Your task to perform on an android device: turn off wifi Image 0: 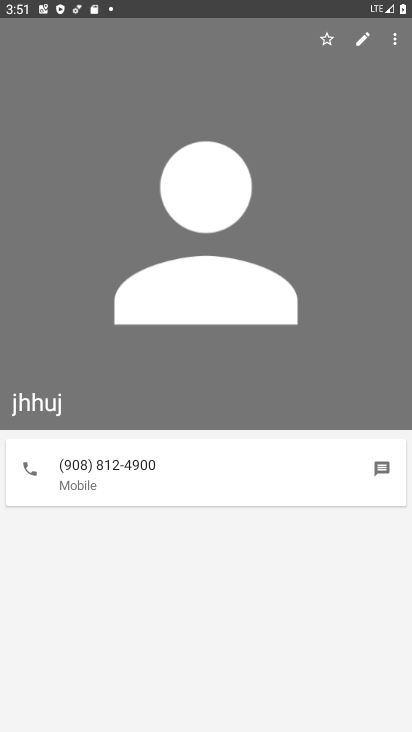
Step 0: press home button
Your task to perform on an android device: turn off wifi Image 1: 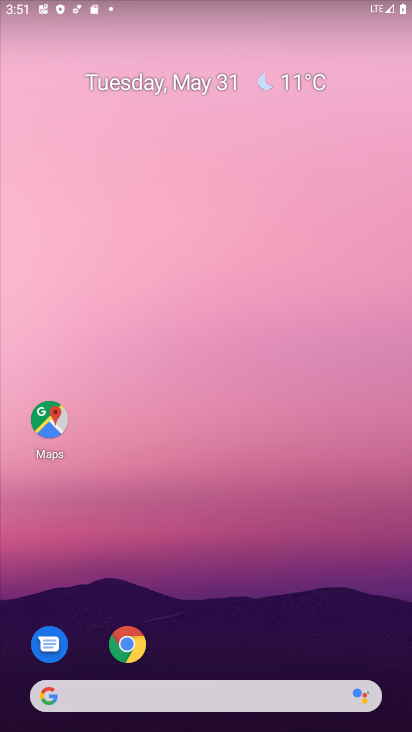
Step 1: drag from (264, 633) to (325, 2)
Your task to perform on an android device: turn off wifi Image 2: 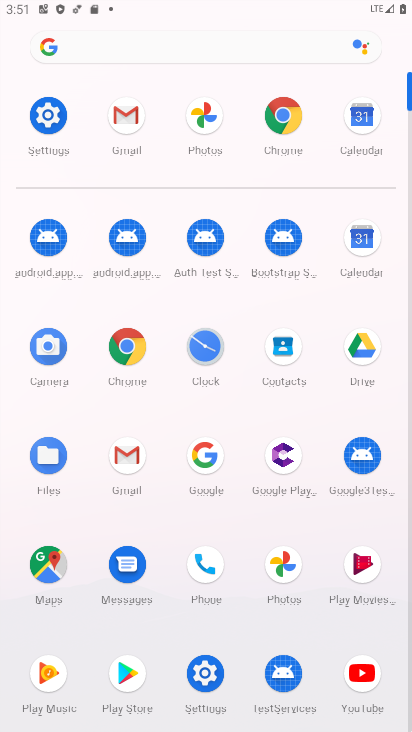
Step 2: click (54, 108)
Your task to perform on an android device: turn off wifi Image 3: 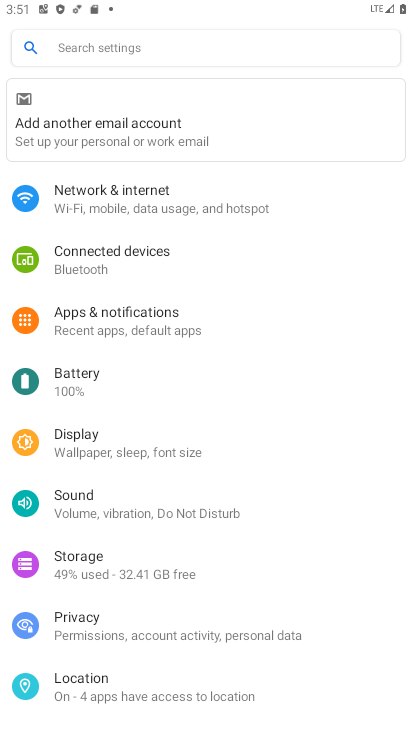
Step 3: click (122, 202)
Your task to perform on an android device: turn off wifi Image 4: 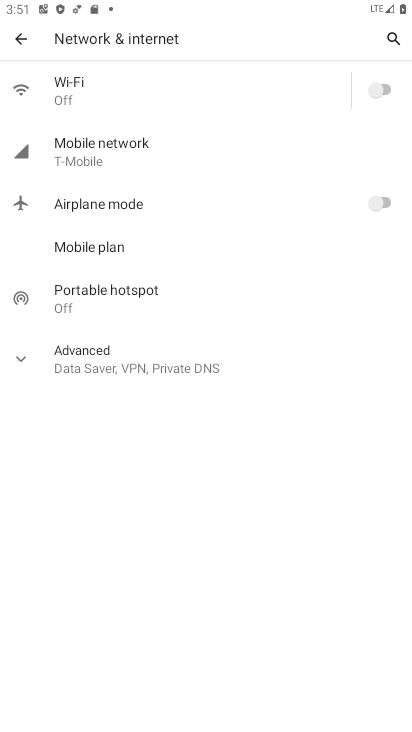
Step 4: task complete